Your task to perform on an android device: What's the weather today? Image 0: 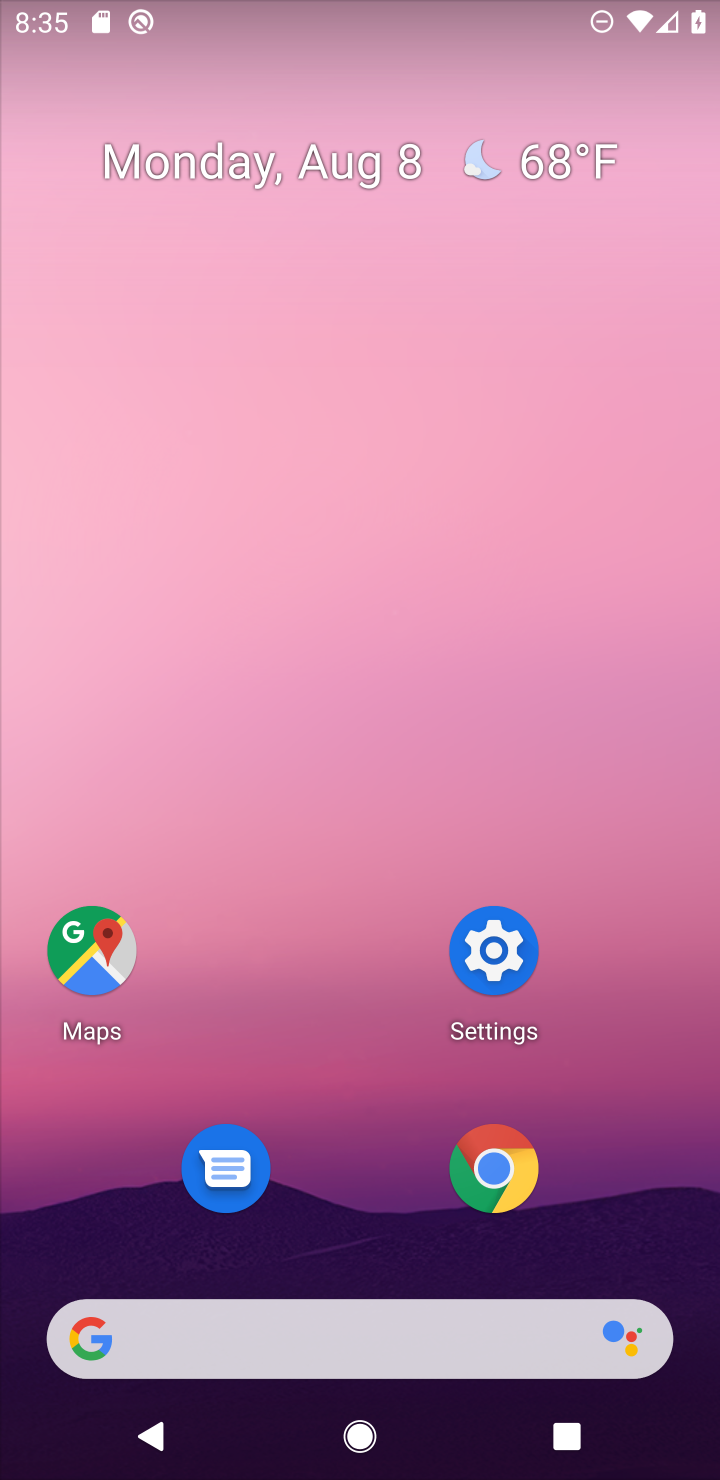
Step 0: press home button
Your task to perform on an android device: What's the weather today? Image 1: 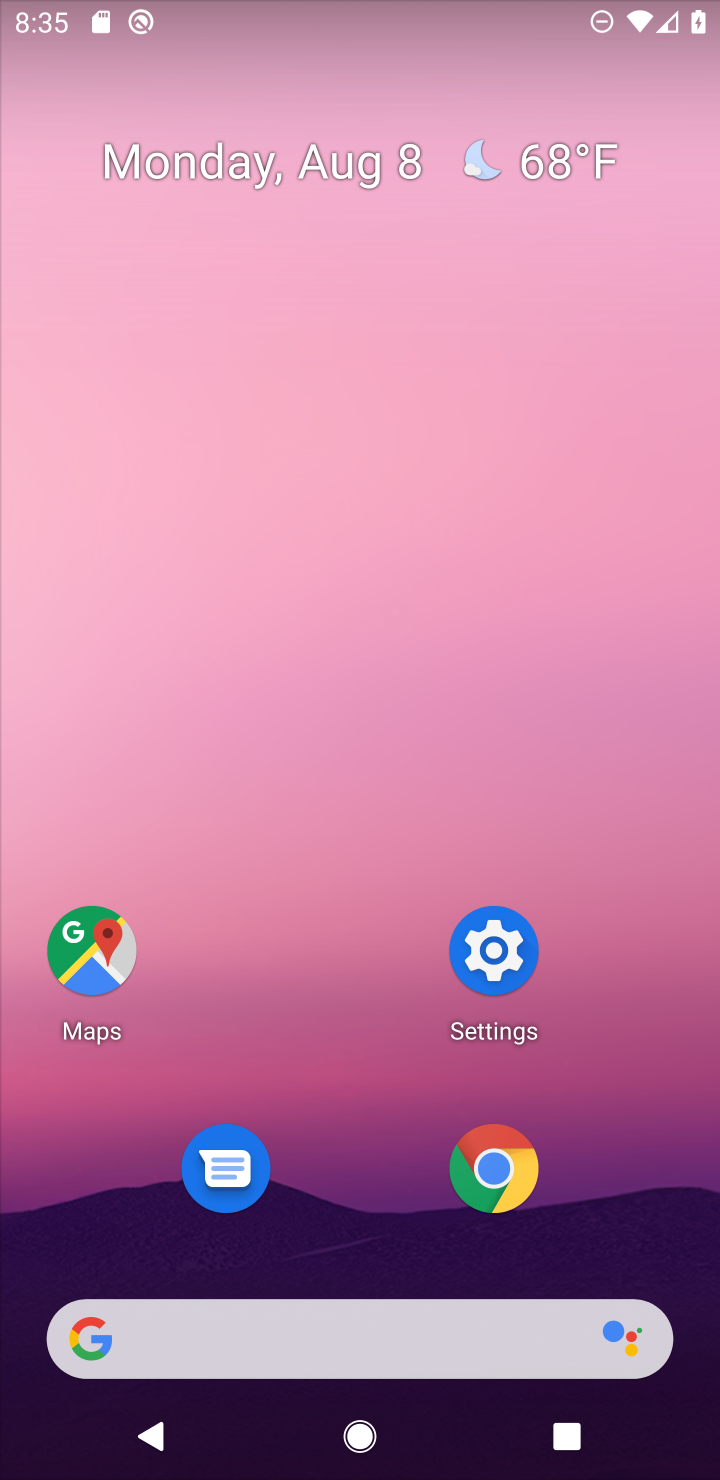
Step 1: click (252, 1326)
Your task to perform on an android device: What's the weather today? Image 2: 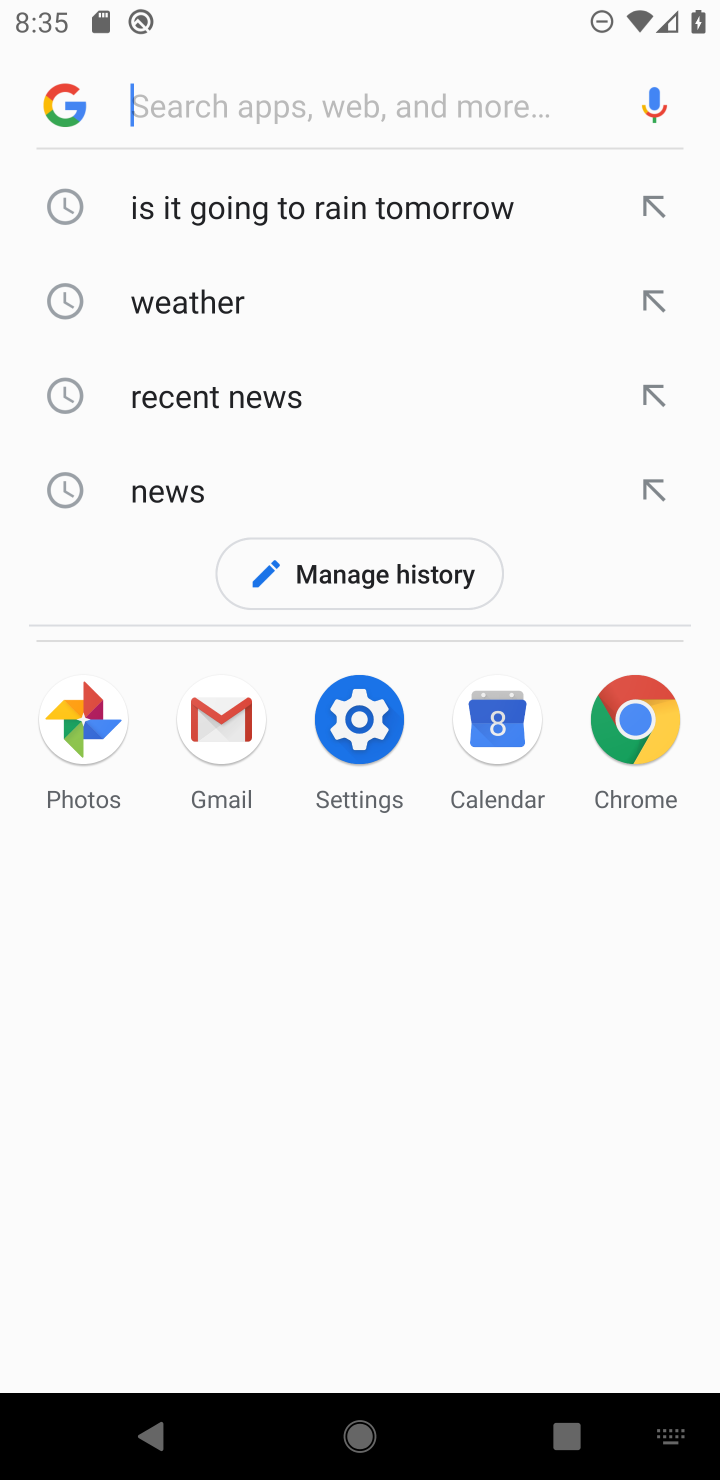
Step 2: click (214, 296)
Your task to perform on an android device: What's the weather today? Image 3: 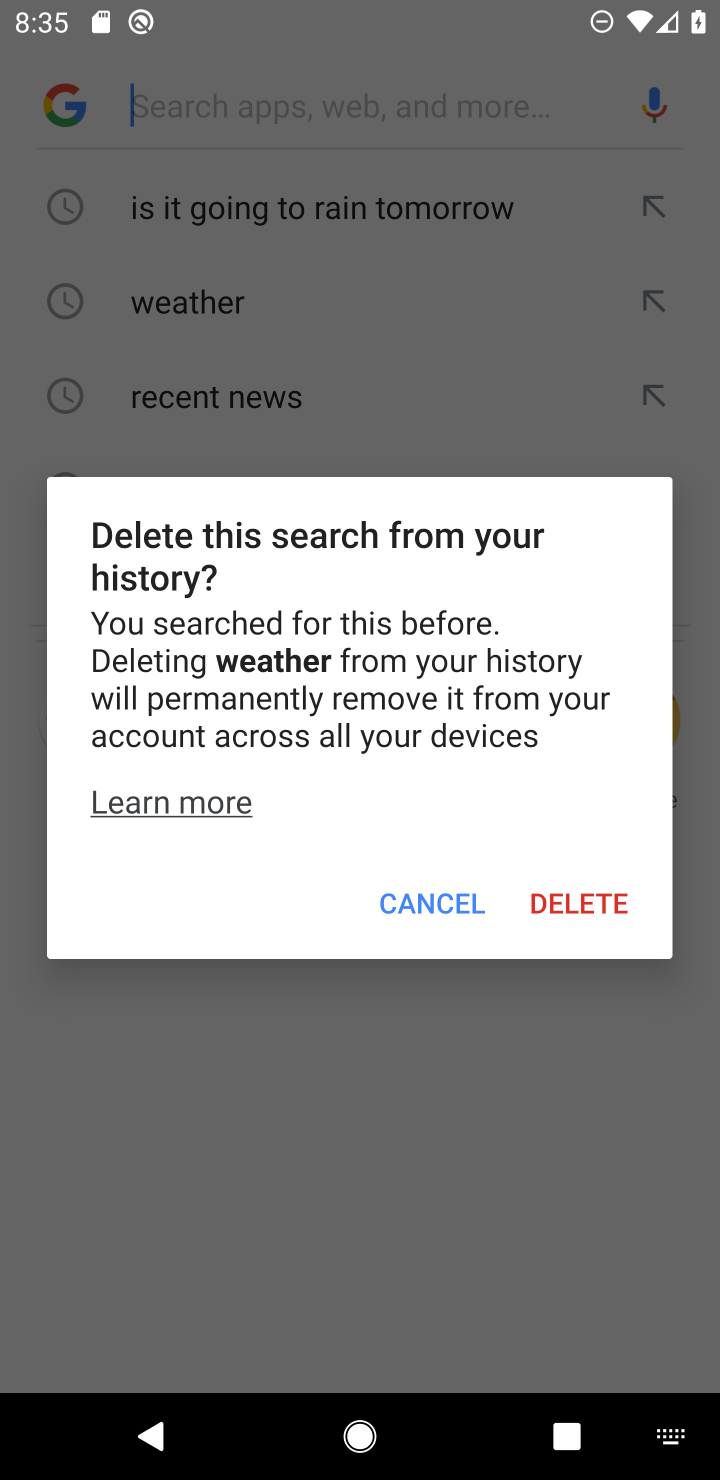
Step 3: click (466, 907)
Your task to perform on an android device: What's the weather today? Image 4: 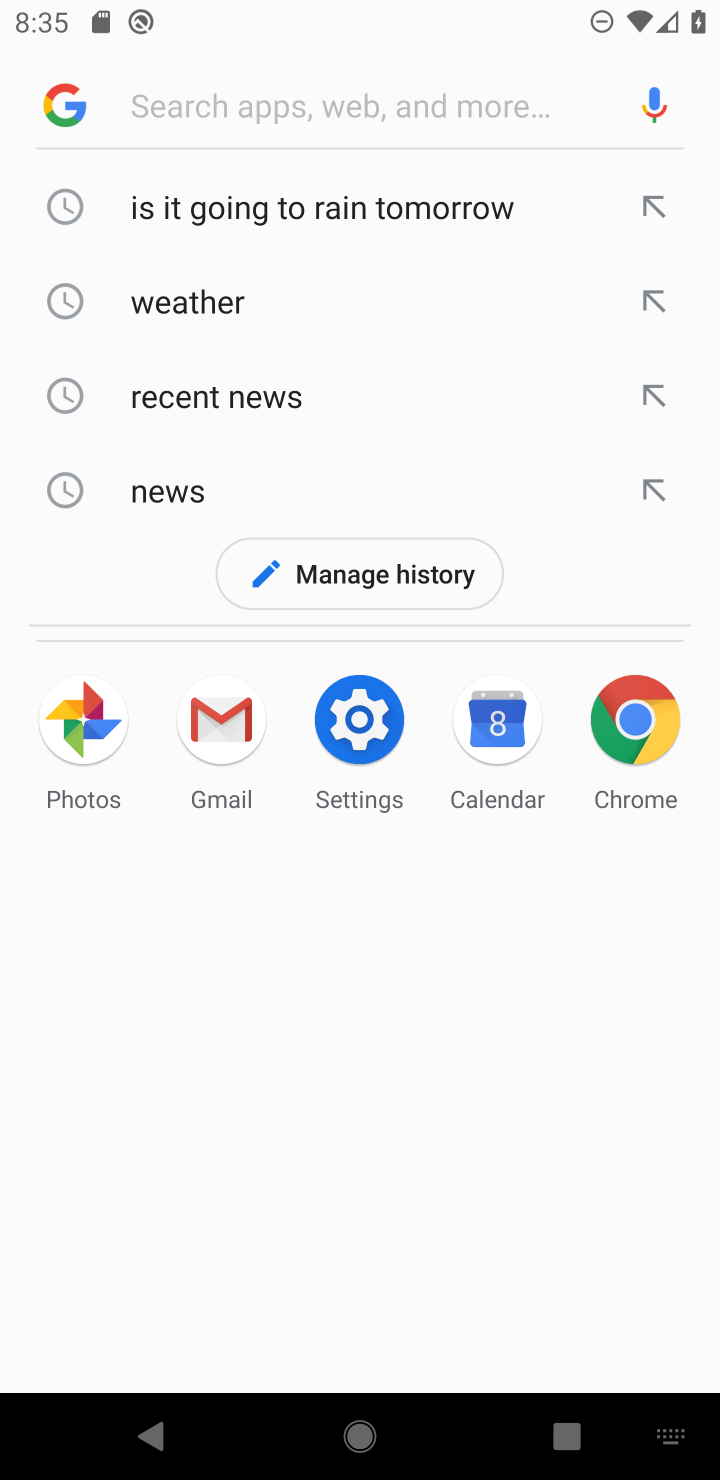
Step 4: click (371, 312)
Your task to perform on an android device: What's the weather today? Image 5: 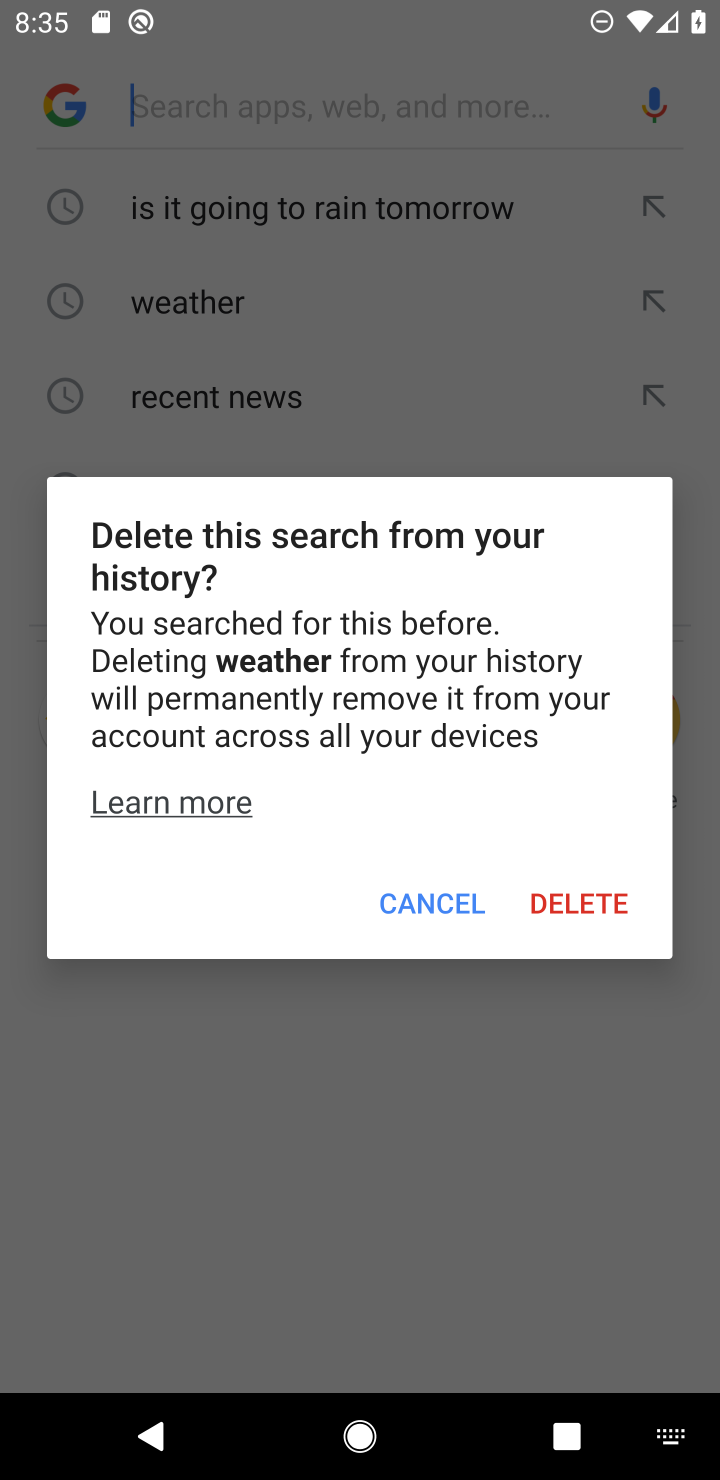
Step 5: click (405, 908)
Your task to perform on an android device: What's the weather today? Image 6: 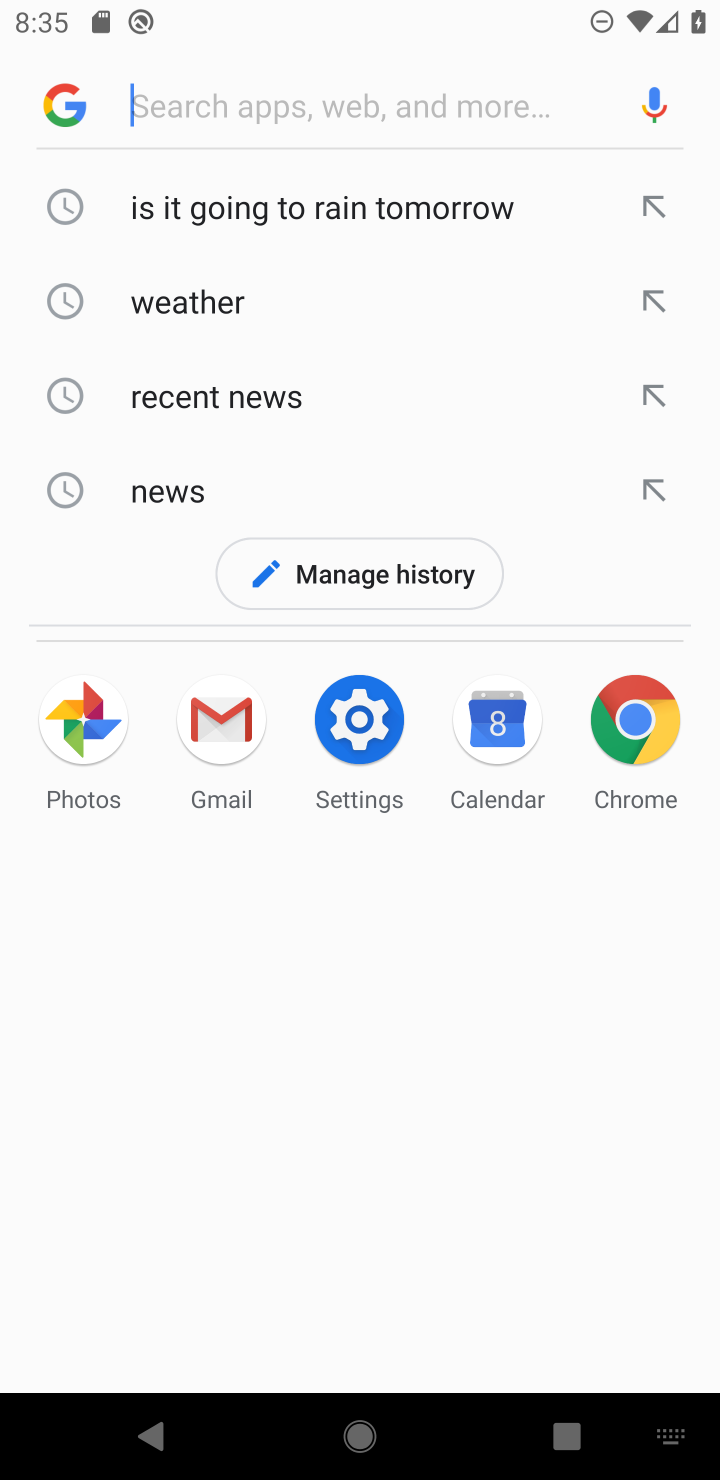
Step 6: click (148, 297)
Your task to perform on an android device: What's the weather today? Image 7: 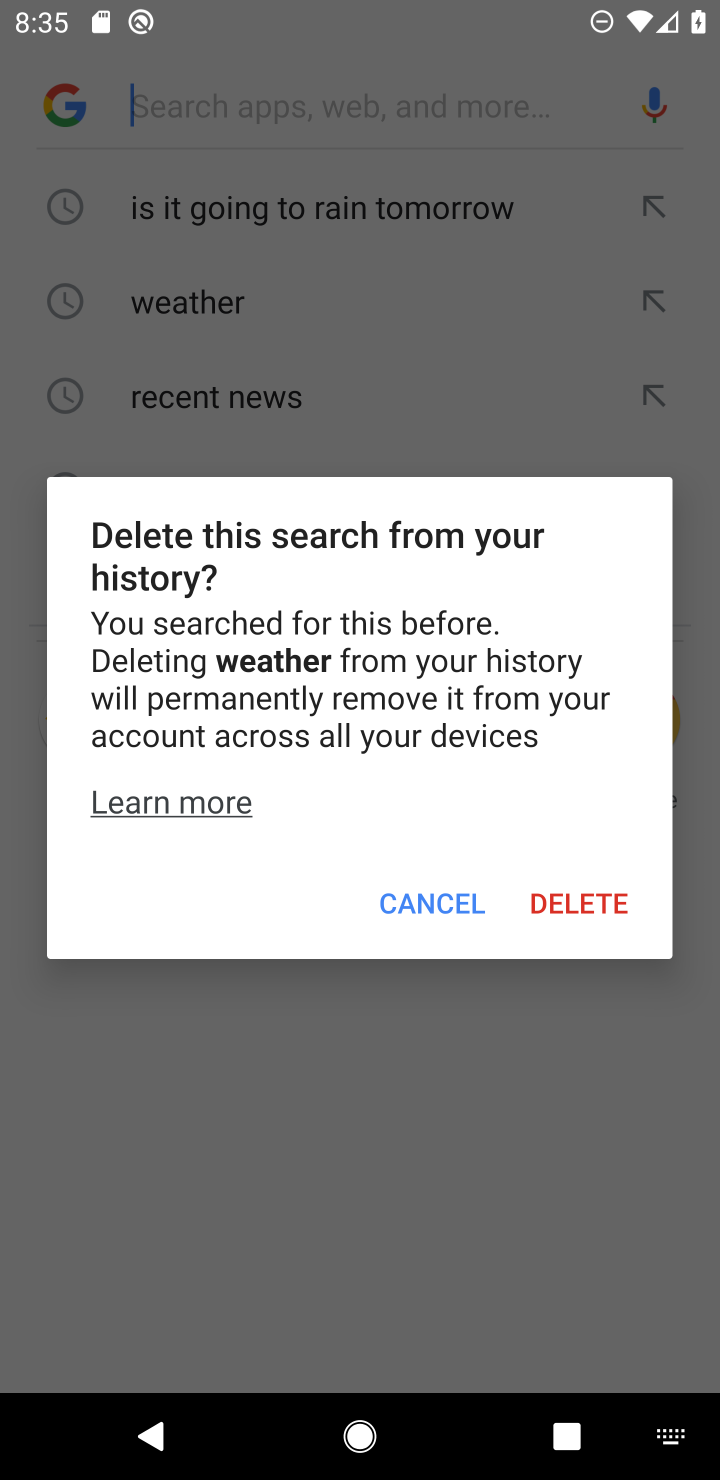
Step 7: click (407, 901)
Your task to perform on an android device: What's the weather today? Image 8: 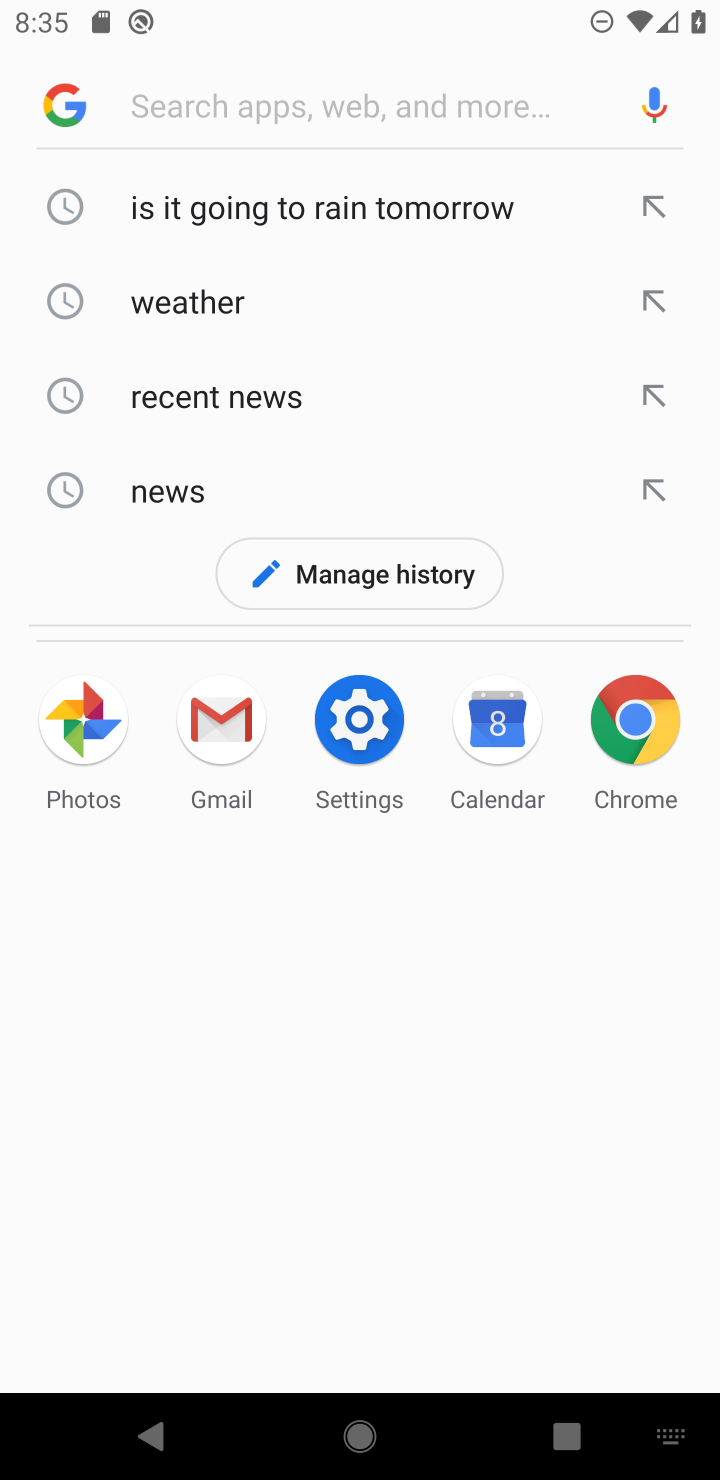
Step 8: click (247, 287)
Your task to perform on an android device: What's the weather today? Image 9: 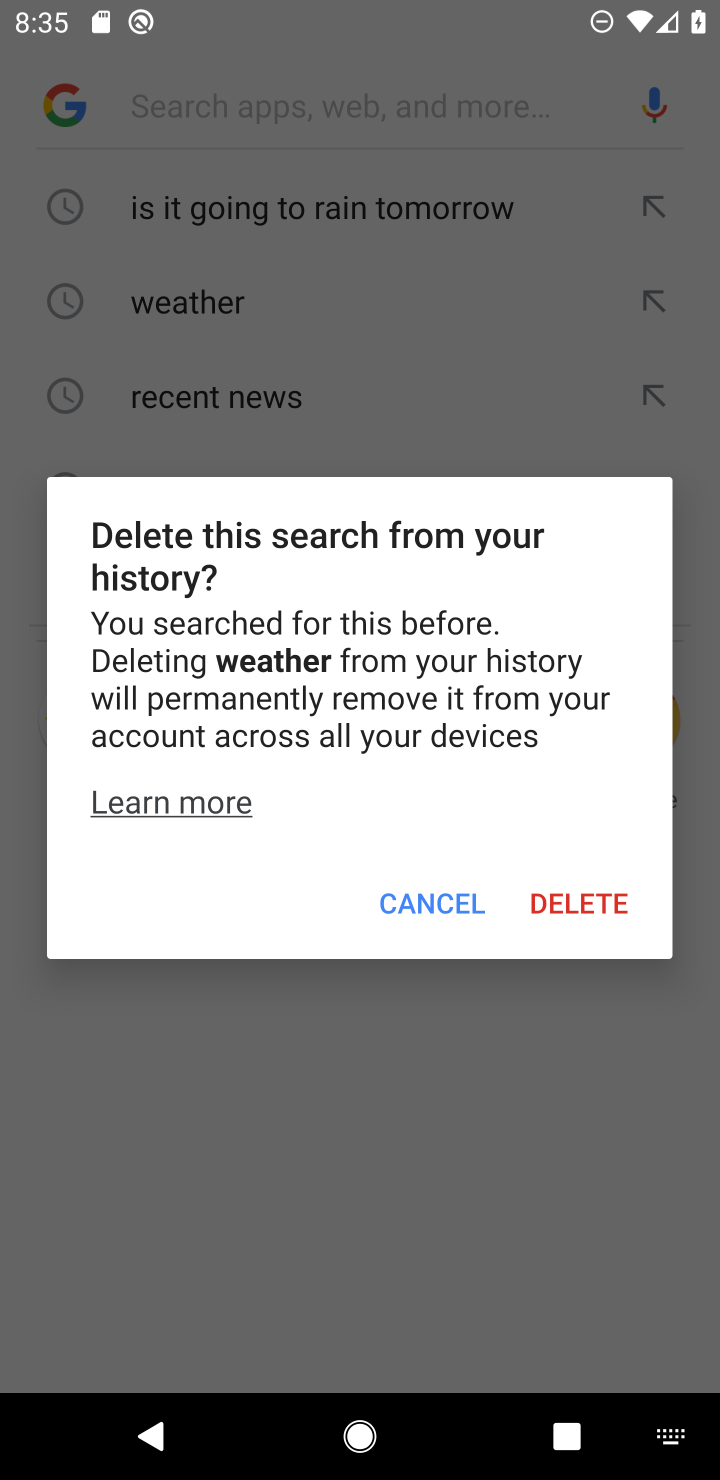
Step 9: click (425, 889)
Your task to perform on an android device: What's the weather today? Image 10: 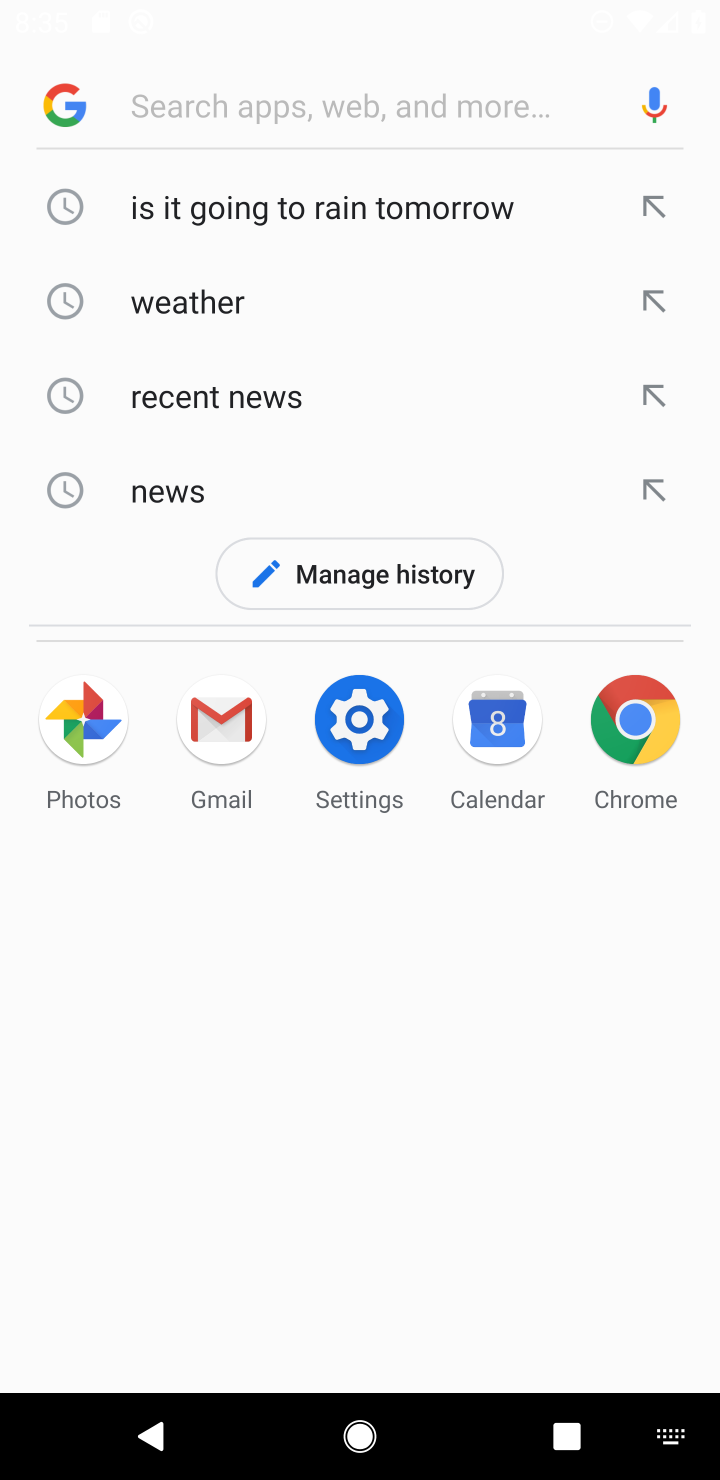
Step 10: click (650, 306)
Your task to perform on an android device: What's the weather today? Image 11: 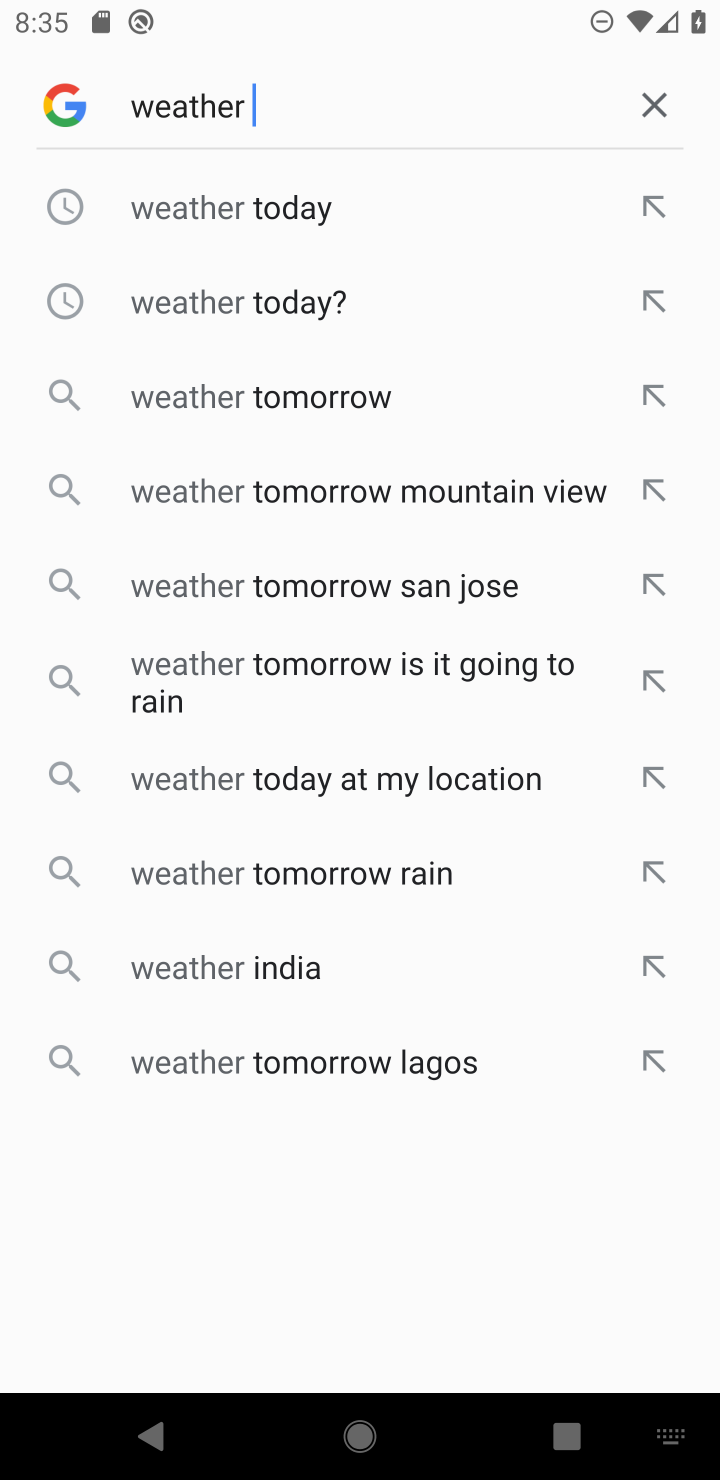
Step 11: click (239, 204)
Your task to perform on an android device: What's the weather today? Image 12: 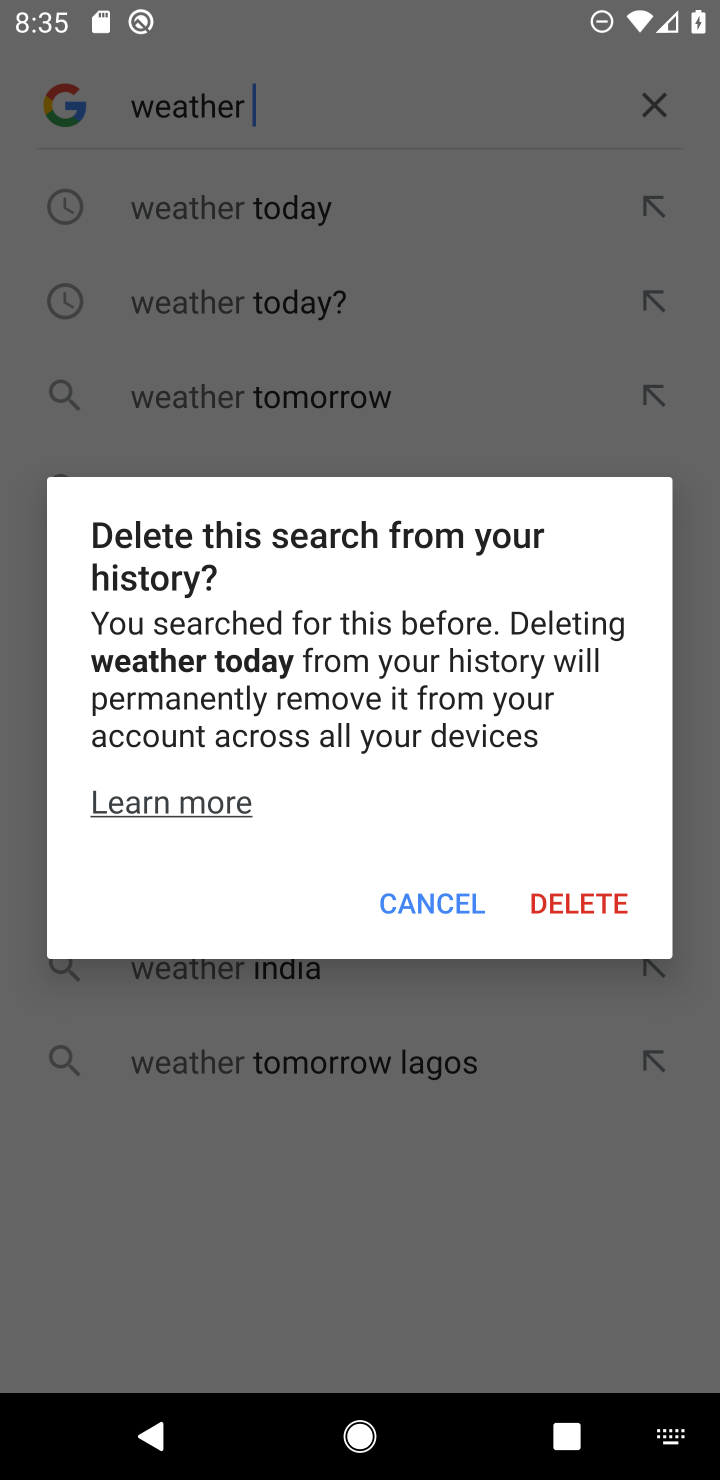
Step 12: click (435, 913)
Your task to perform on an android device: What's the weather today? Image 13: 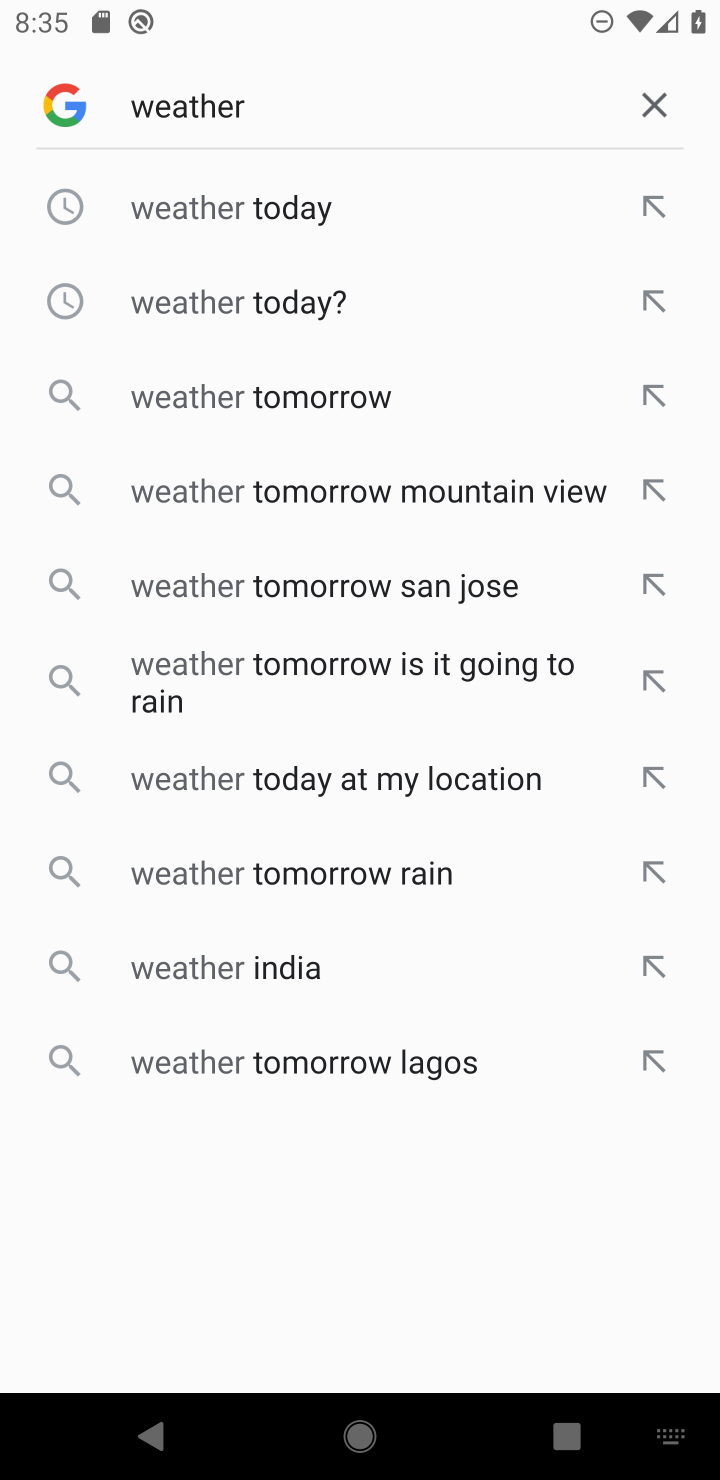
Step 13: click (305, 377)
Your task to perform on an android device: What's the weather today? Image 14: 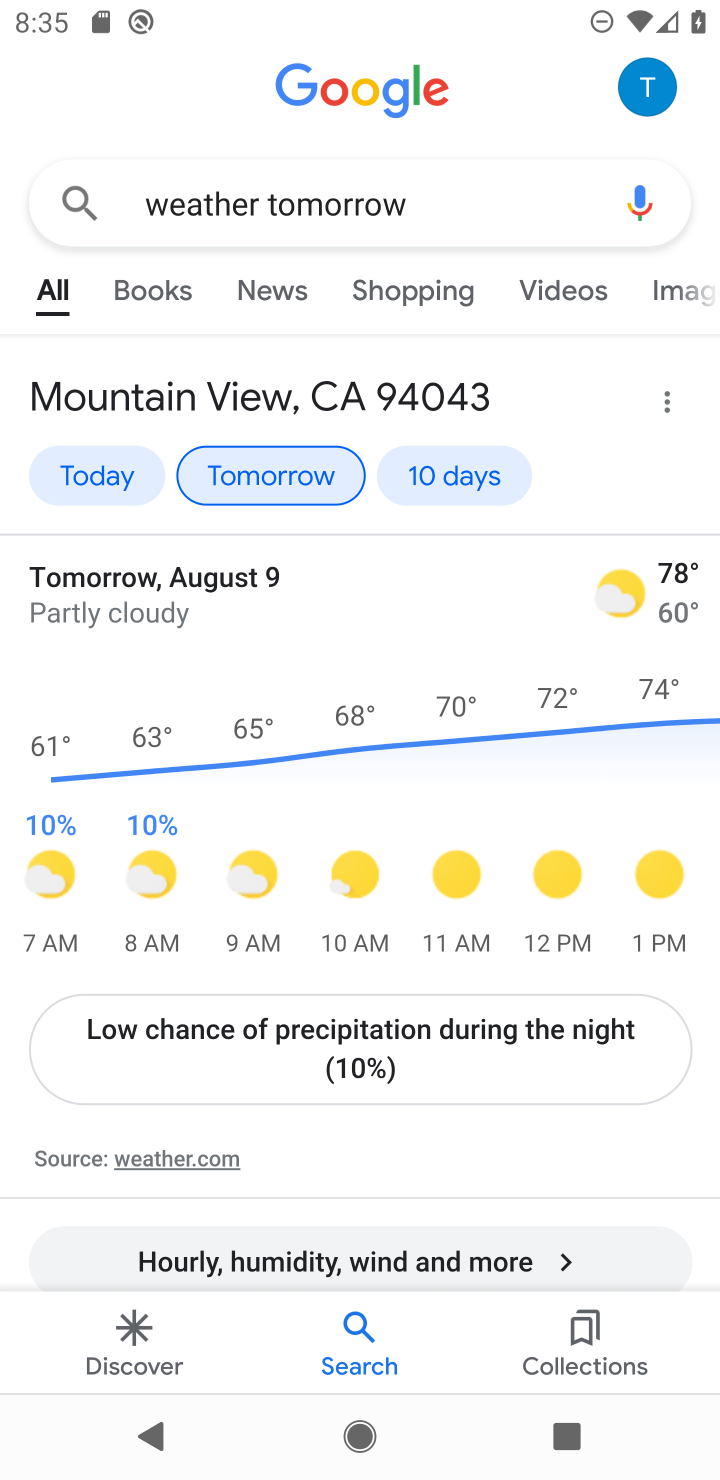
Step 14: click (120, 475)
Your task to perform on an android device: What's the weather today? Image 15: 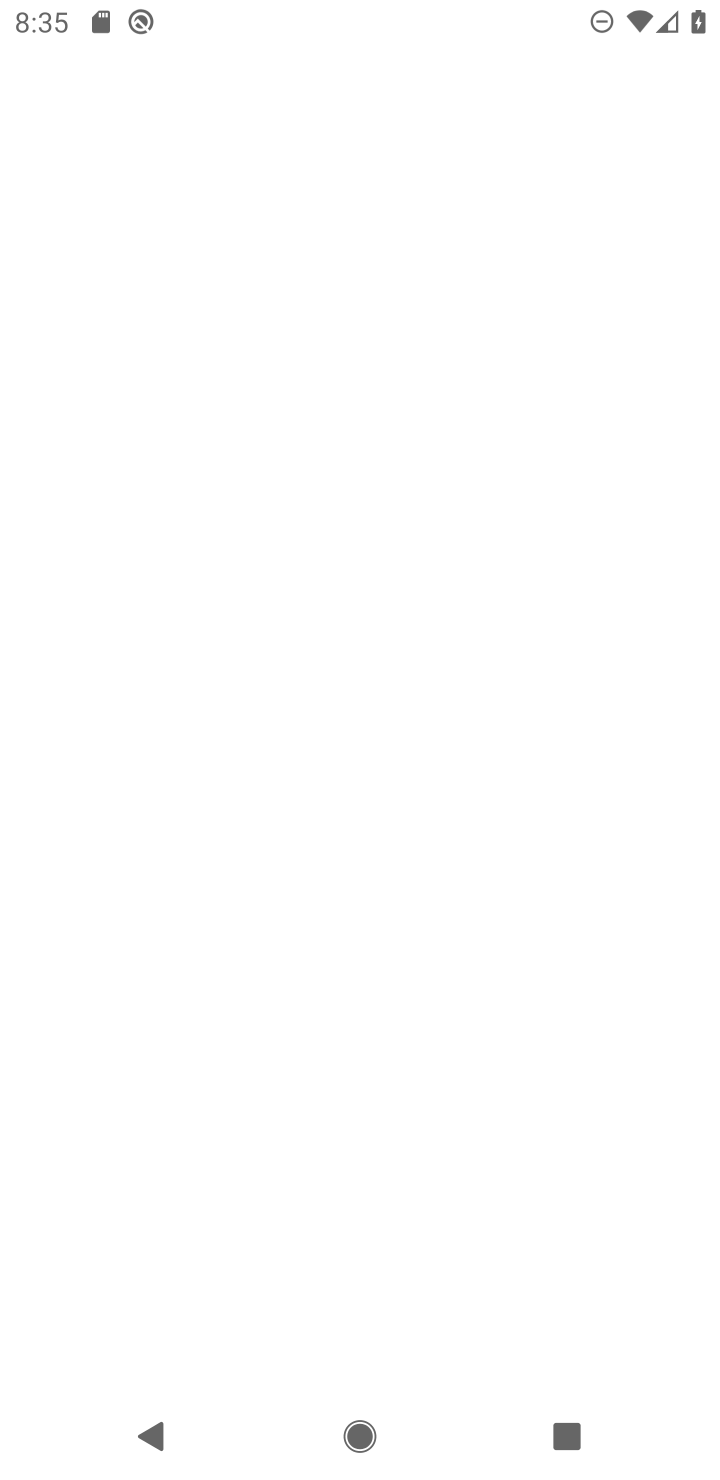
Step 15: click (102, 469)
Your task to perform on an android device: What's the weather today? Image 16: 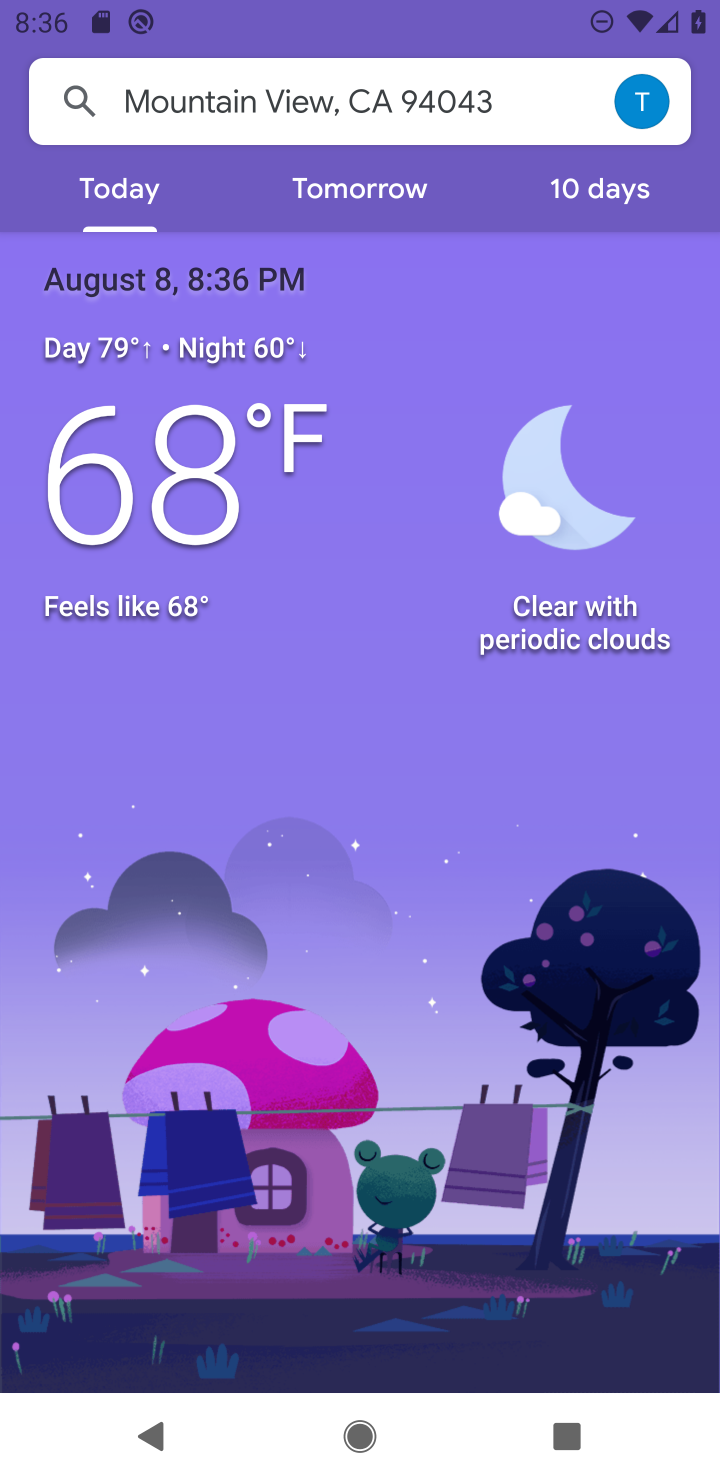
Step 16: task complete